Your task to perform on an android device: delete browsing data in the chrome app Image 0: 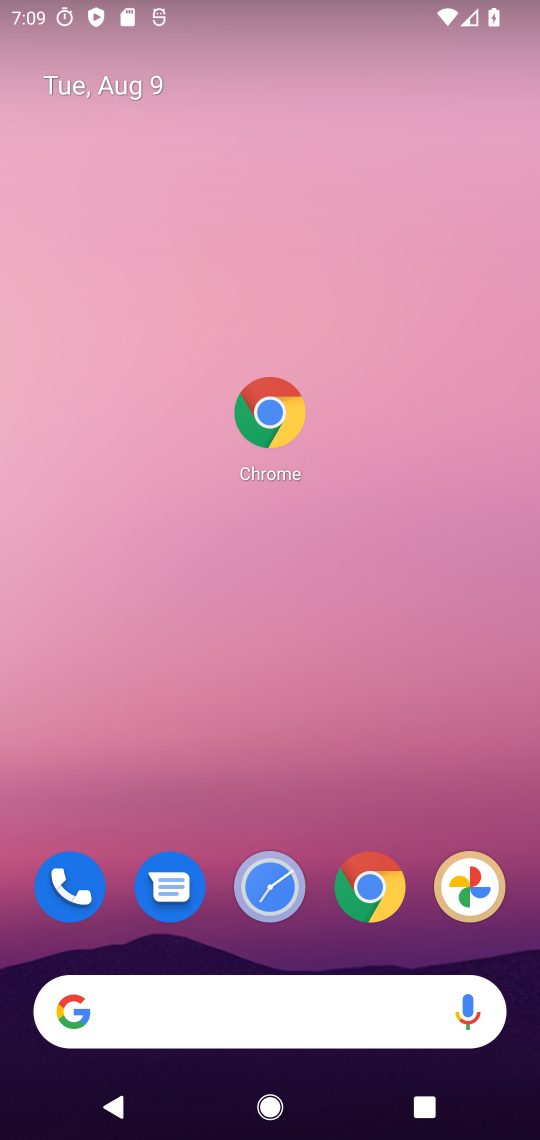
Step 0: drag from (349, 1090) to (371, 365)
Your task to perform on an android device: delete browsing data in the chrome app Image 1: 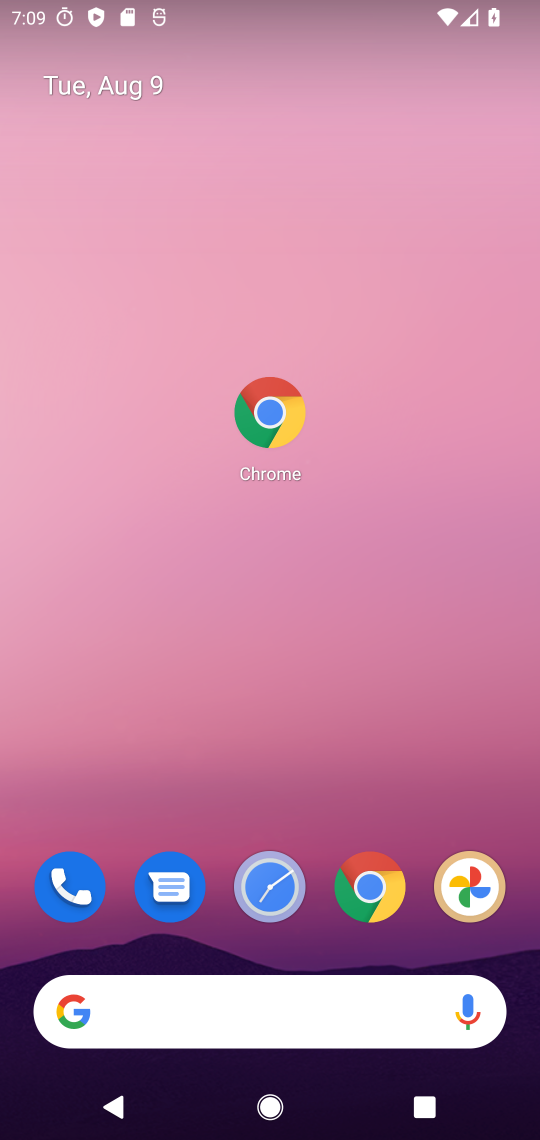
Step 1: drag from (363, 1011) to (253, 384)
Your task to perform on an android device: delete browsing data in the chrome app Image 2: 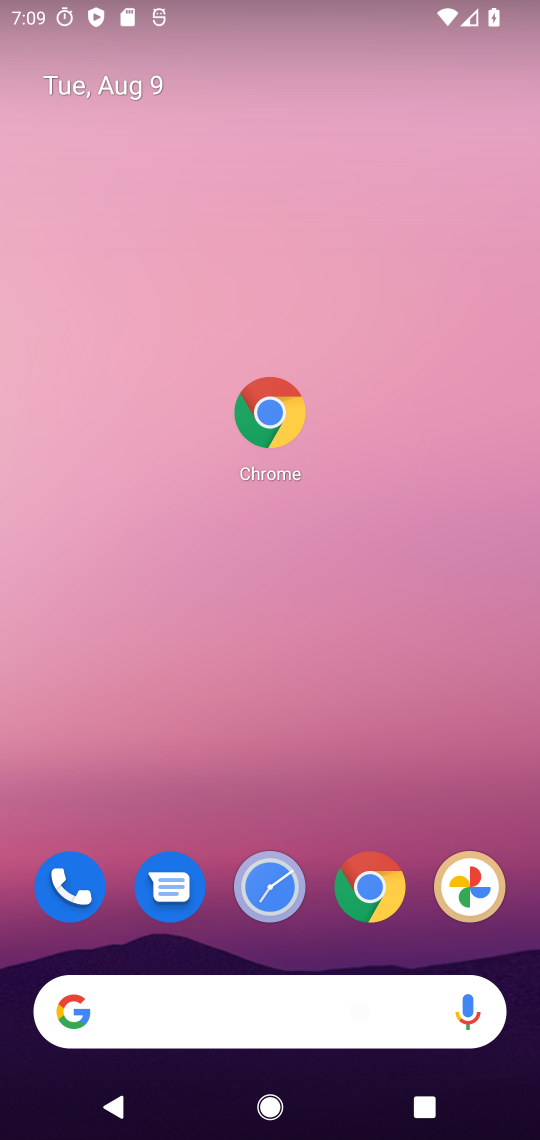
Step 2: drag from (279, 662) to (291, 391)
Your task to perform on an android device: delete browsing data in the chrome app Image 3: 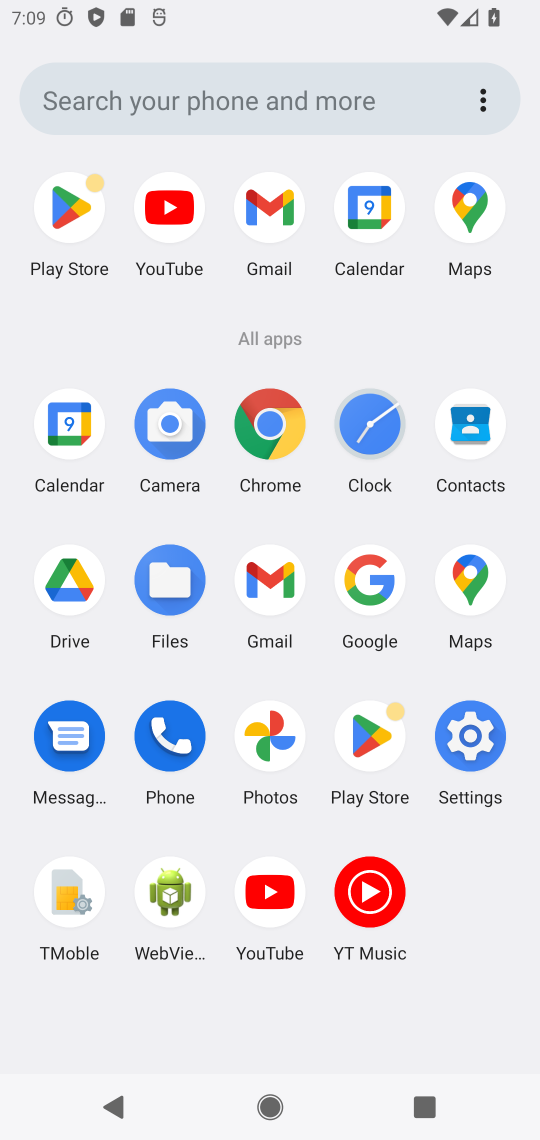
Step 3: drag from (299, 842) to (307, 100)
Your task to perform on an android device: delete browsing data in the chrome app Image 4: 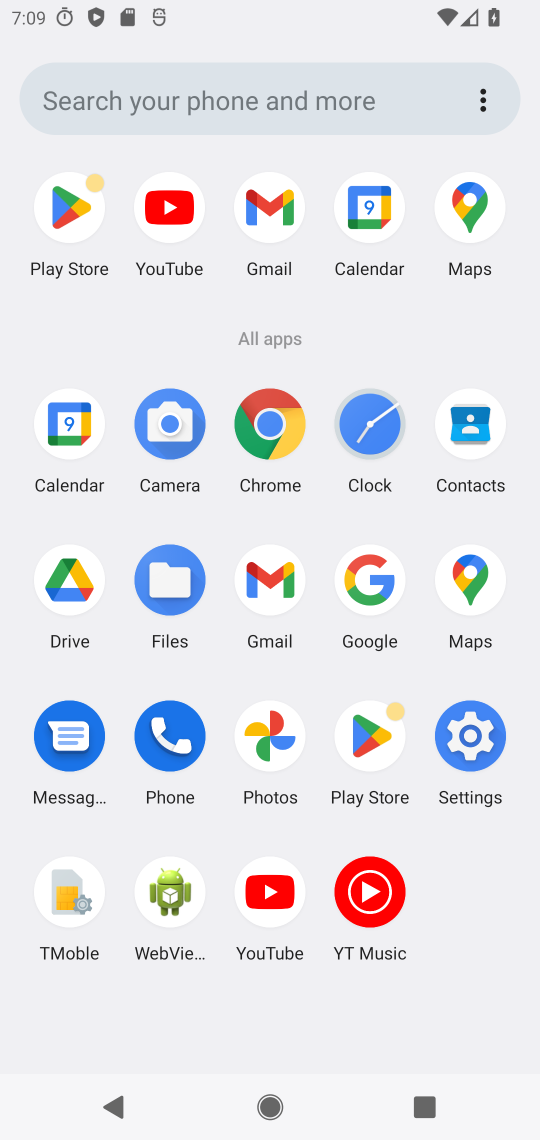
Step 4: click (261, 413)
Your task to perform on an android device: delete browsing data in the chrome app Image 5: 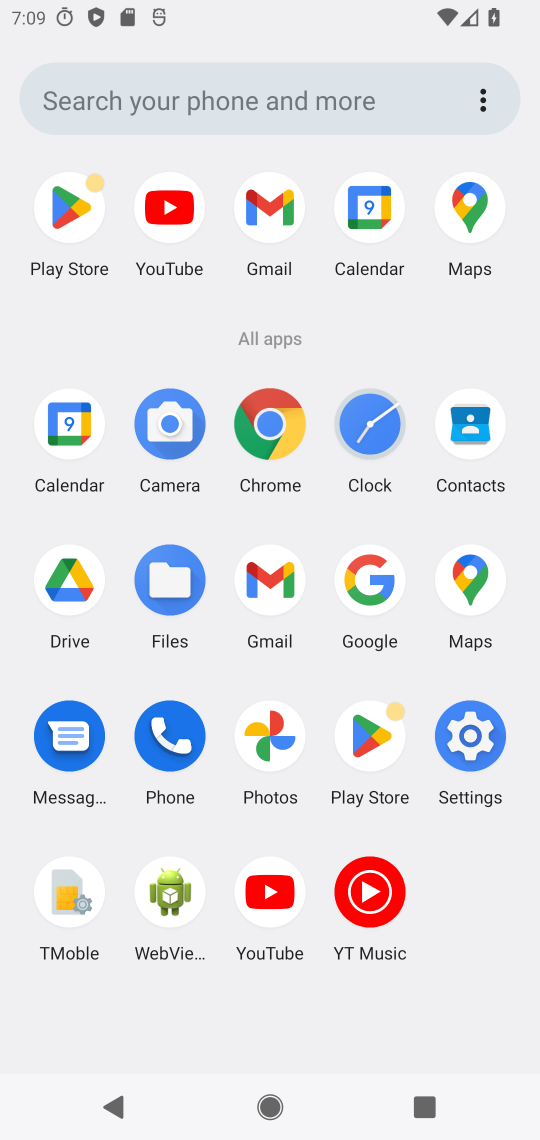
Step 5: click (263, 403)
Your task to perform on an android device: delete browsing data in the chrome app Image 6: 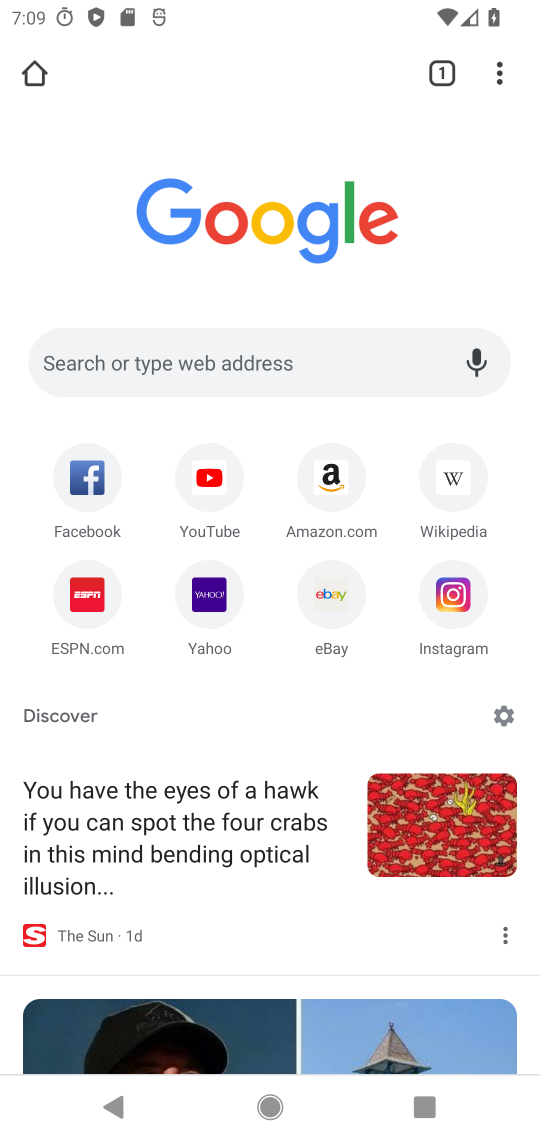
Step 6: drag from (494, 69) to (242, 291)
Your task to perform on an android device: delete browsing data in the chrome app Image 7: 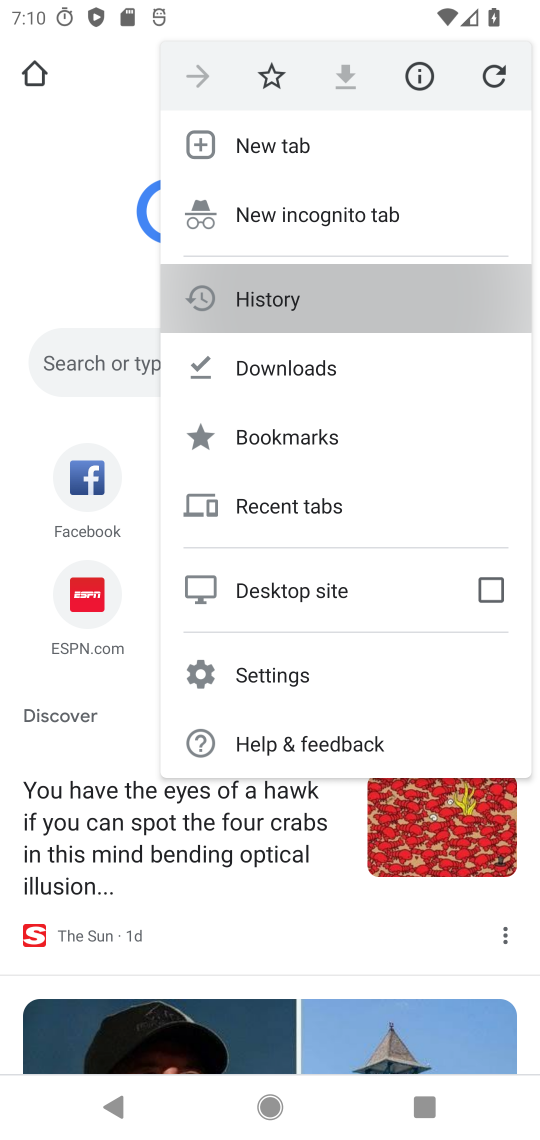
Step 7: click (243, 298)
Your task to perform on an android device: delete browsing data in the chrome app Image 8: 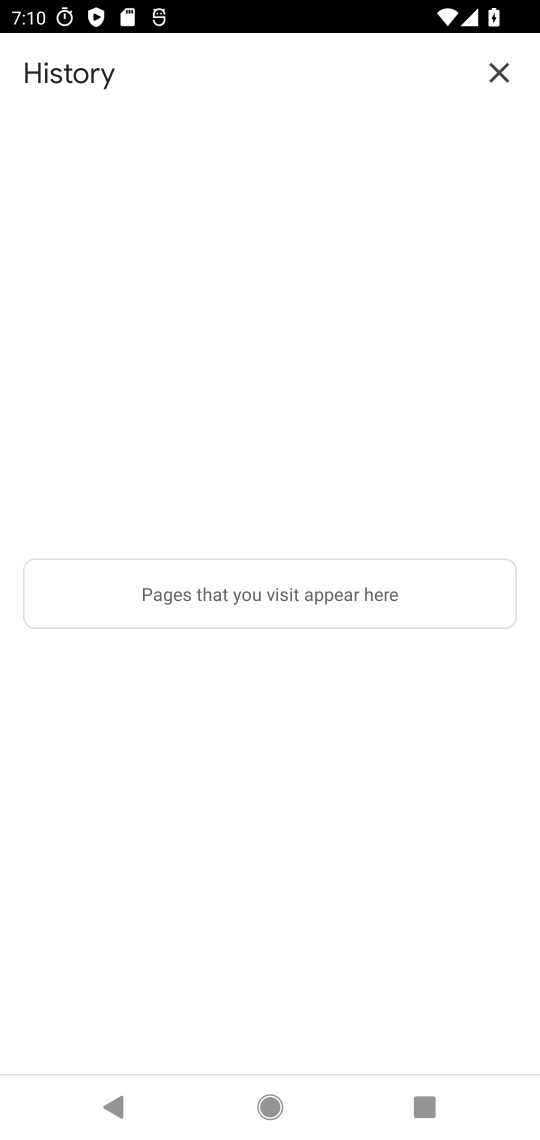
Step 8: click (499, 65)
Your task to perform on an android device: delete browsing data in the chrome app Image 9: 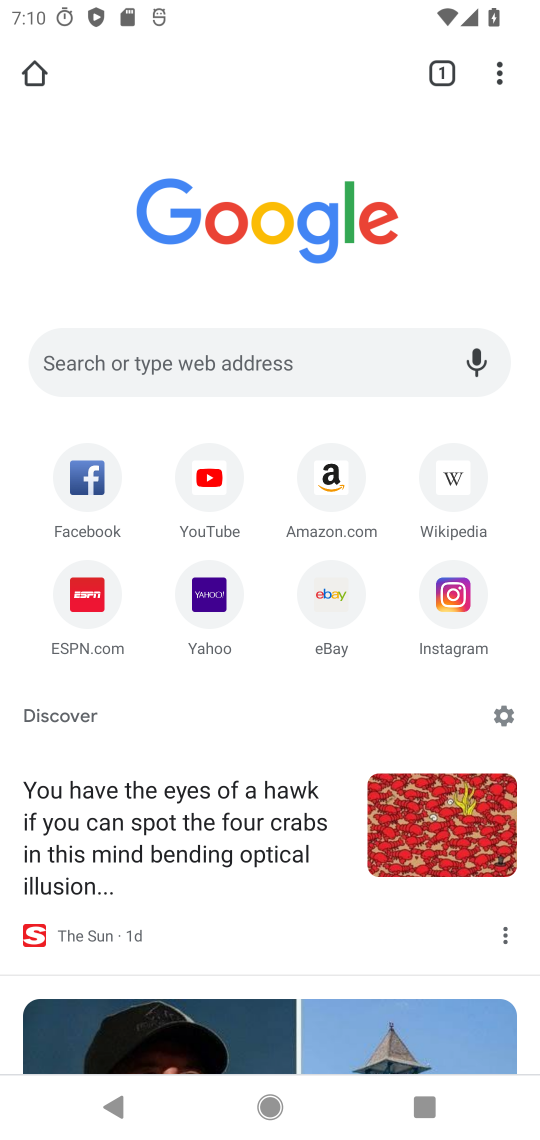
Step 9: task complete